Your task to perform on an android device: Open the map Image 0: 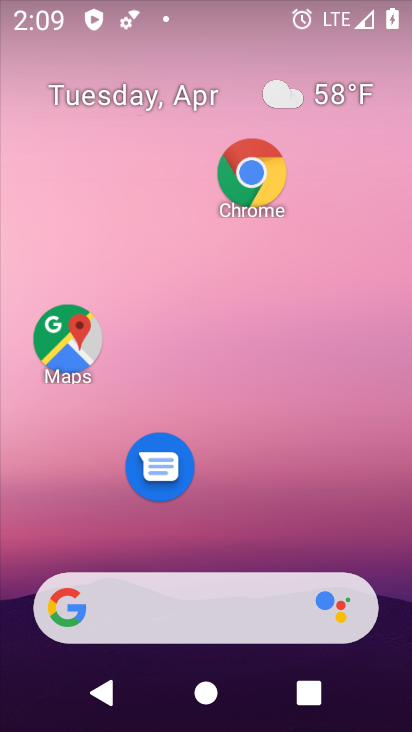
Step 0: drag from (362, 488) to (385, 32)
Your task to perform on an android device: Open the map Image 1: 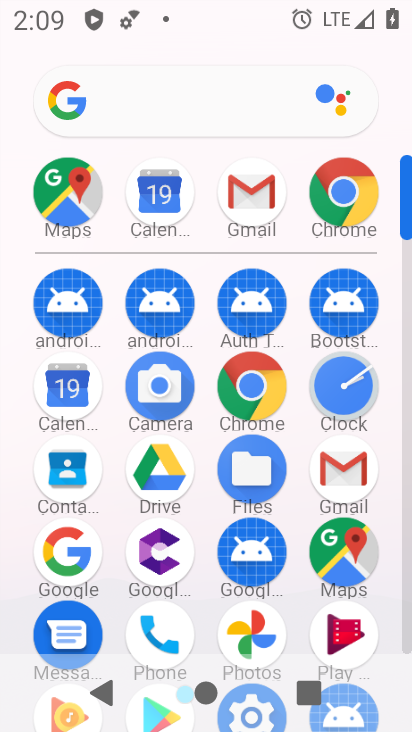
Step 1: click (336, 561)
Your task to perform on an android device: Open the map Image 2: 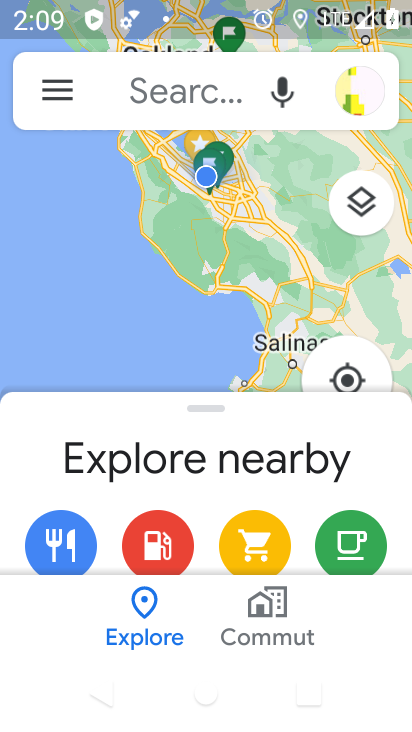
Step 2: task complete